Your task to perform on an android device: check google app version Image 0: 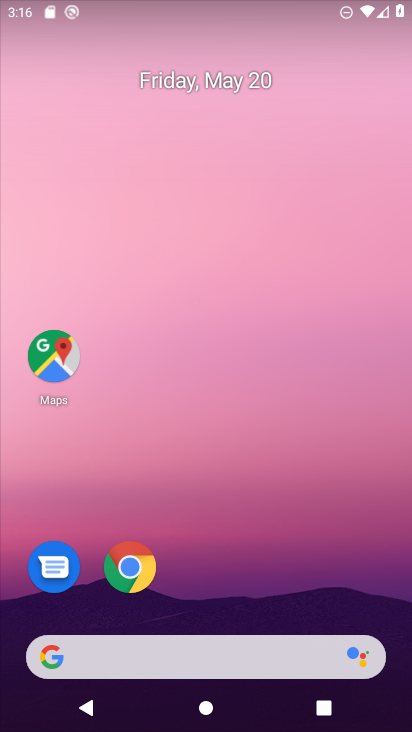
Step 0: drag from (224, 671) to (221, 182)
Your task to perform on an android device: check google app version Image 1: 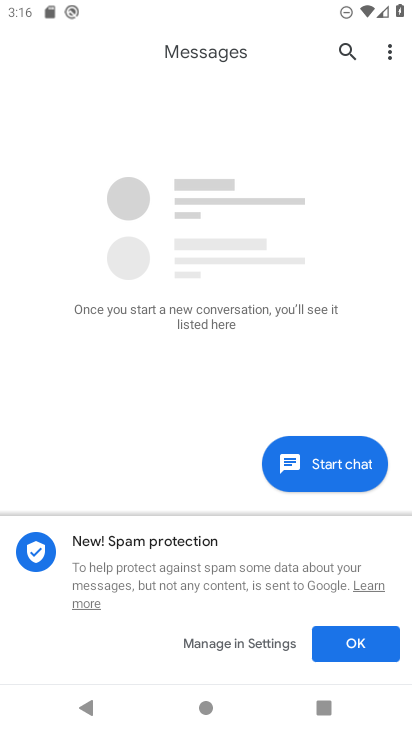
Step 1: press home button
Your task to perform on an android device: check google app version Image 2: 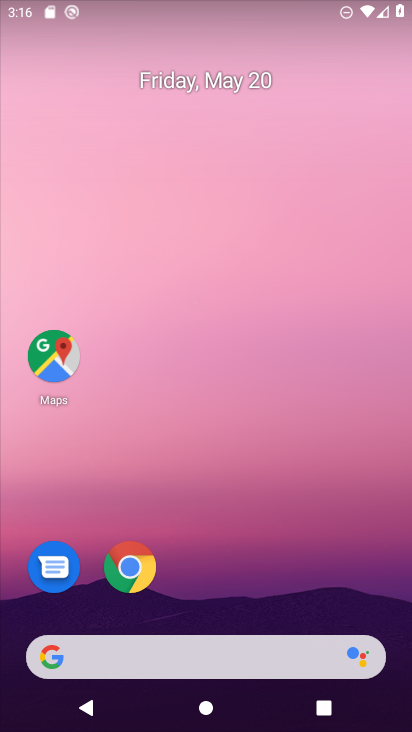
Step 2: drag from (229, 693) to (217, 124)
Your task to perform on an android device: check google app version Image 3: 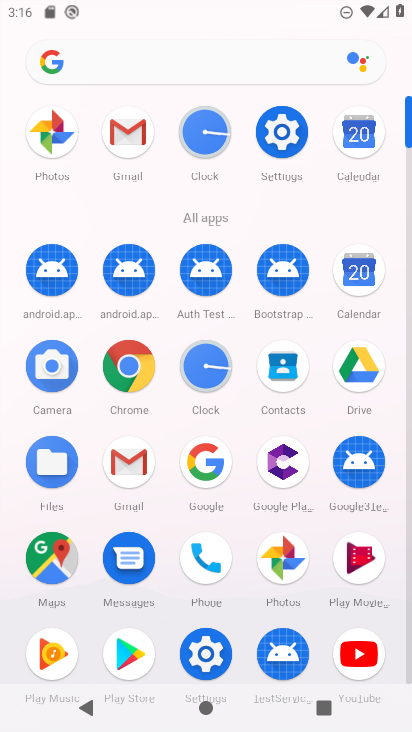
Step 3: click (201, 461)
Your task to perform on an android device: check google app version Image 4: 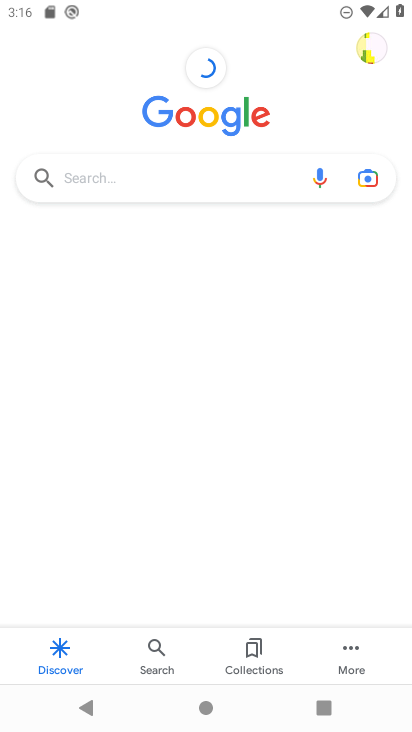
Step 4: click (351, 645)
Your task to perform on an android device: check google app version Image 5: 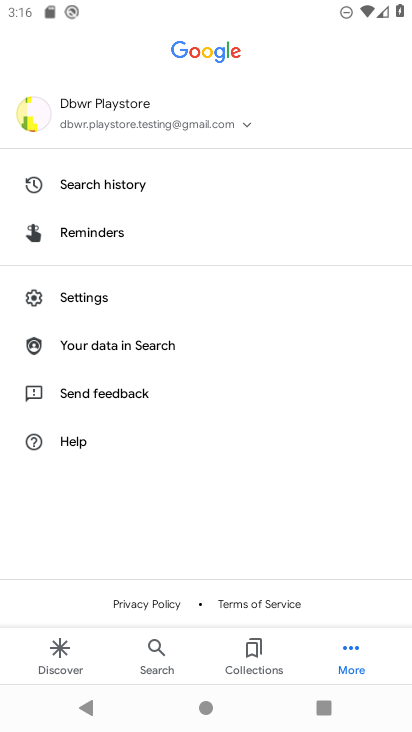
Step 5: click (88, 288)
Your task to perform on an android device: check google app version Image 6: 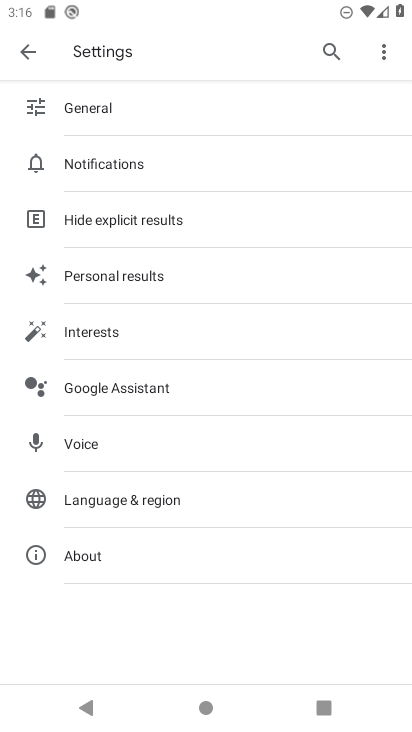
Step 6: click (100, 556)
Your task to perform on an android device: check google app version Image 7: 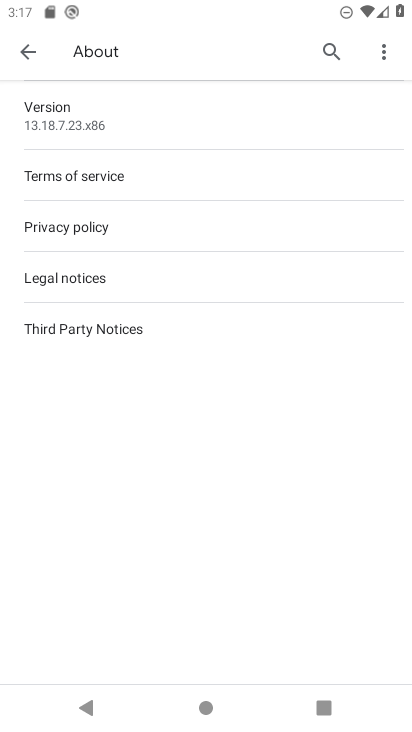
Step 7: task complete